Your task to perform on an android device: remove spam from my inbox in the gmail app Image 0: 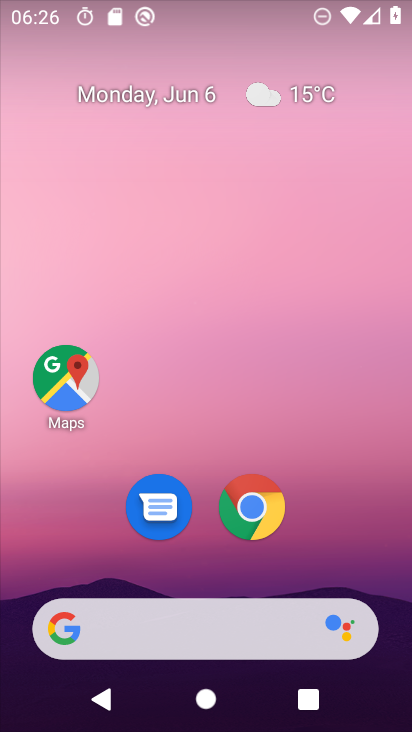
Step 0: drag from (208, 585) to (187, 46)
Your task to perform on an android device: remove spam from my inbox in the gmail app Image 1: 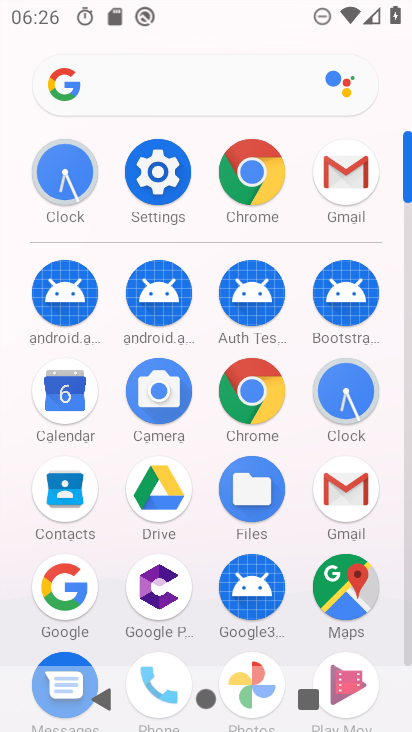
Step 1: click (359, 162)
Your task to perform on an android device: remove spam from my inbox in the gmail app Image 2: 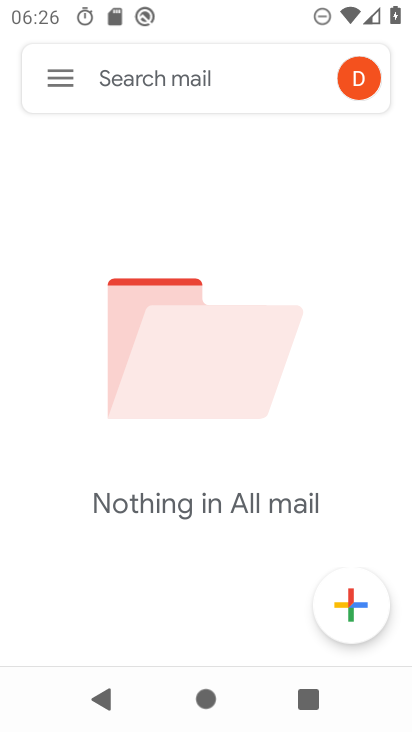
Step 2: click (51, 84)
Your task to perform on an android device: remove spam from my inbox in the gmail app Image 3: 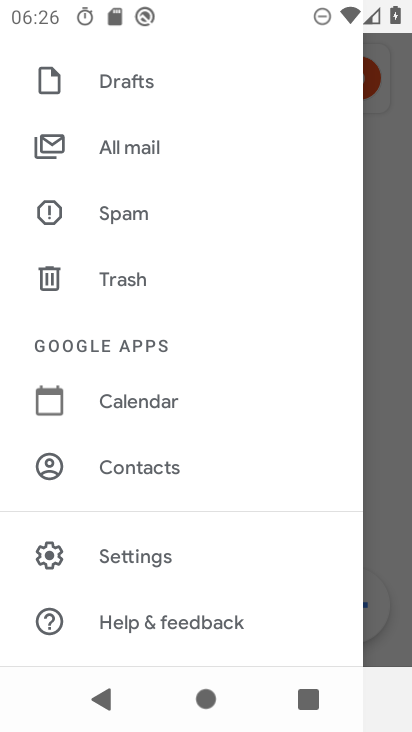
Step 3: click (119, 216)
Your task to perform on an android device: remove spam from my inbox in the gmail app Image 4: 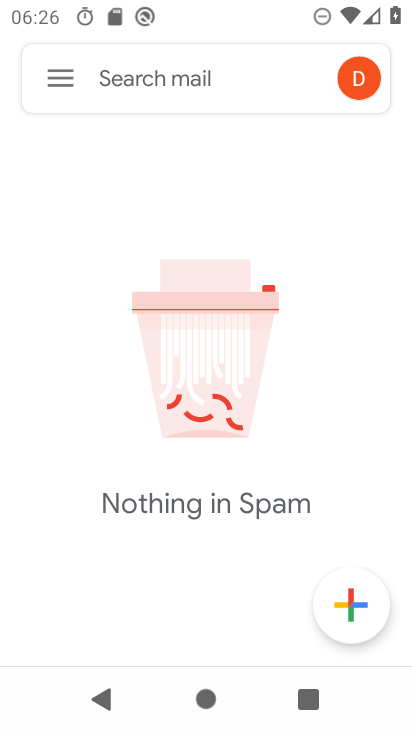
Step 4: task complete